Your task to perform on an android device: empty trash in the gmail app Image 0: 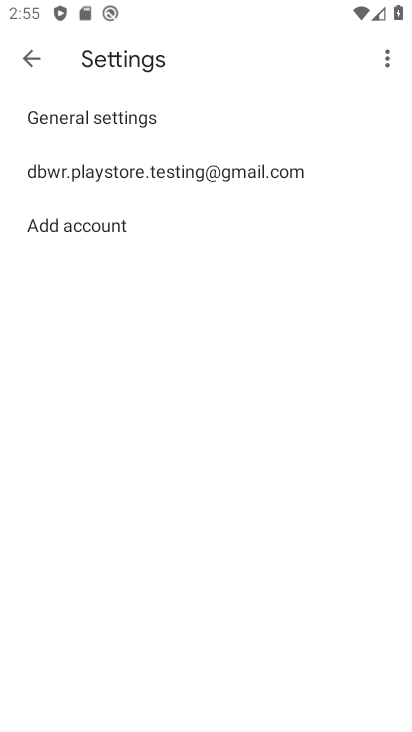
Step 0: press home button
Your task to perform on an android device: empty trash in the gmail app Image 1: 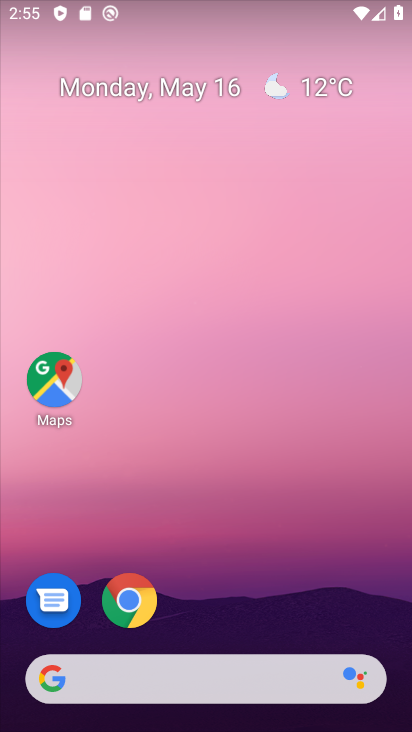
Step 1: drag from (248, 642) to (233, 28)
Your task to perform on an android device: empty trash in the gmail app Image 2: 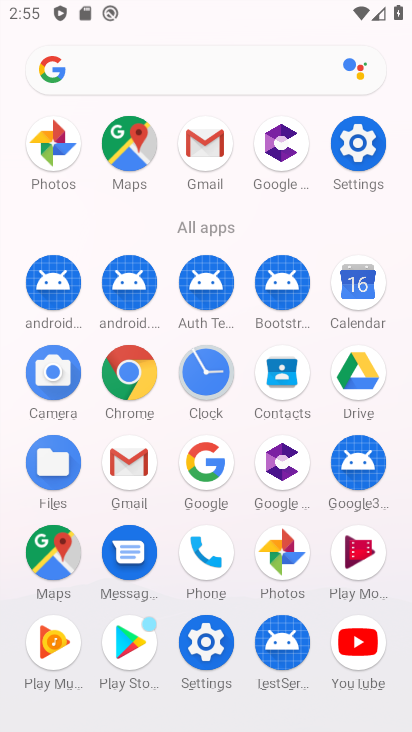
Step 2: click (127, 476)
Your task to perform on an android device: empty trash in the gmail app Image 3: 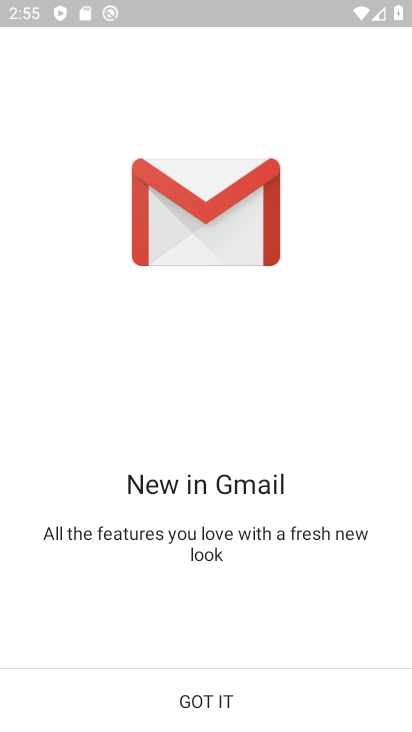
Step 3: click (222, 689)
Your task to perform on an android device: empty trash in the gmail app Image 4: 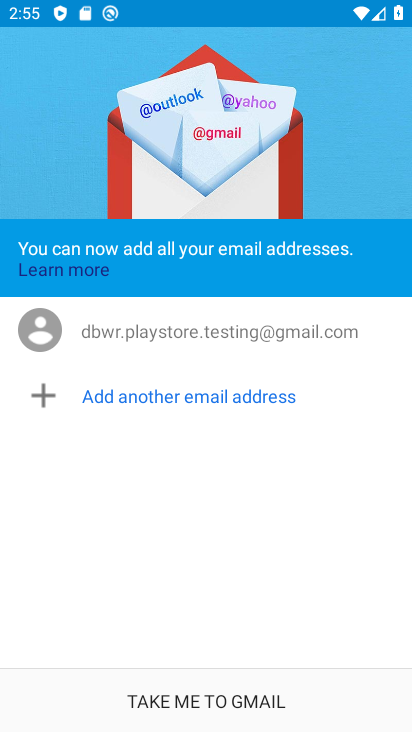
Step 4: click (223, 710)
Your task to perform on an android device: empty trash in the gmail app Image 5: 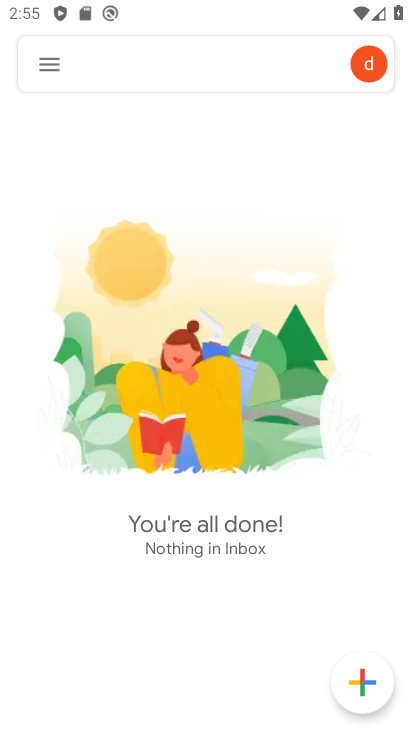
Step 5: click (45, 57)
Your task to perform on an android device: empty trash in the gmail app Image 6: 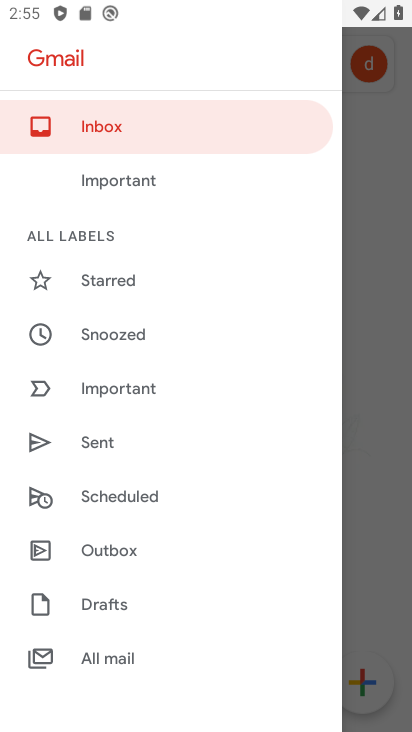
Step 6: drag from (145, 581) to (130, 175)
Your task to perform on an android device: empty trash in the gmail app Image 7: 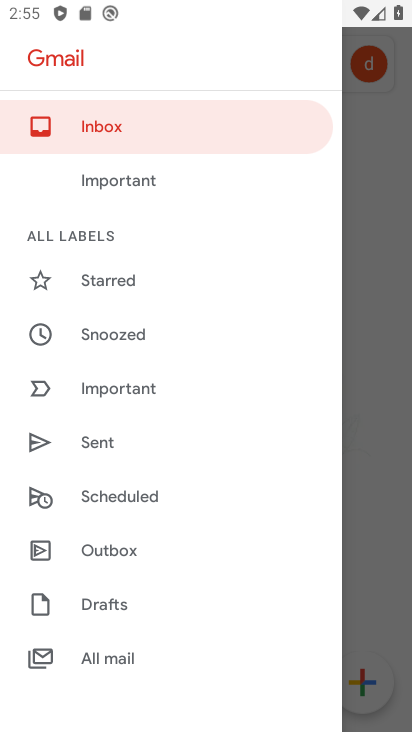
Step 7: drag from (161, 573) to (162, 65)
Your task to perform on an android device: empty trash in the gmail app Image 8: 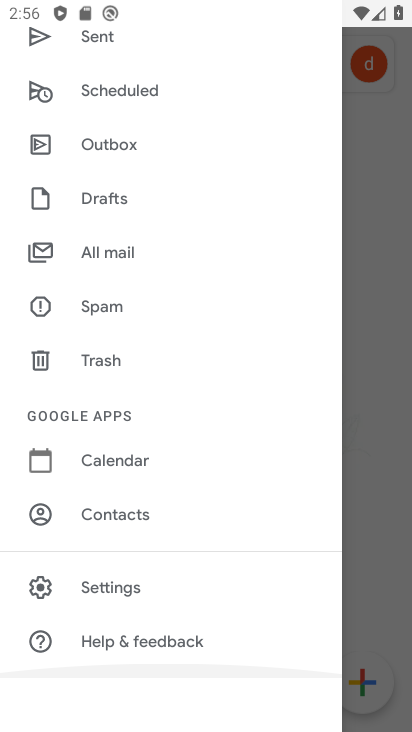
Step 8: click (62, 361)
Your task to perform on an android device: empty trash in the gmail app Image 9: 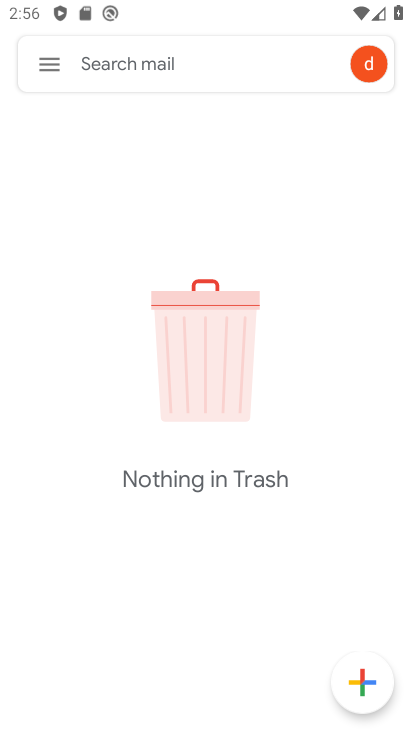
Step 9: task complete